Your task to perform on an android device: check the backup settings in the google photos Image 0: 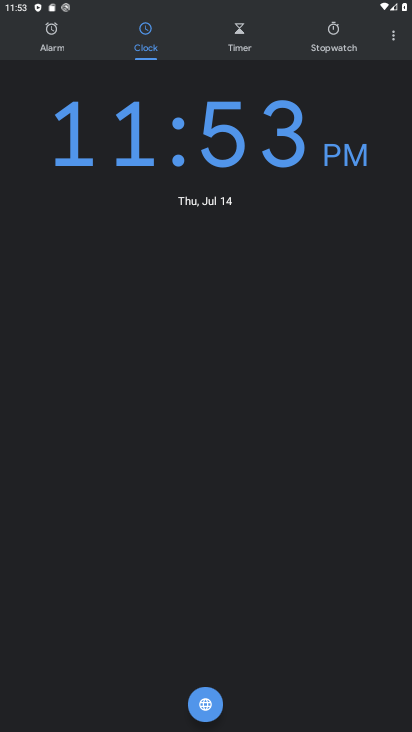
Step 0: press home button
Your task to perform on an android device: check the backup settings in the google photos Image 1: 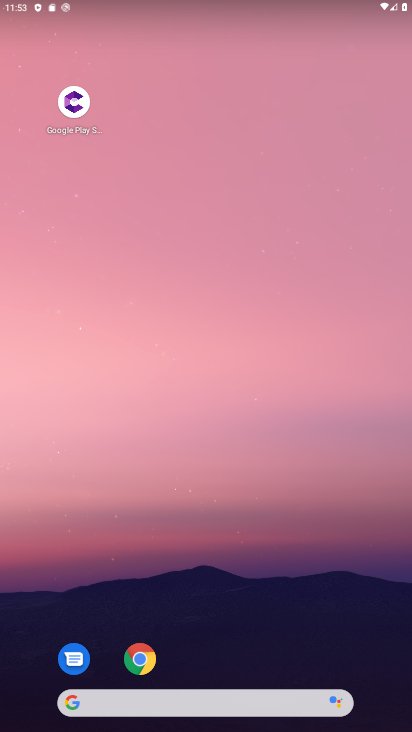
Step 1: drag from (198, 660) to (182, 197)
Your task to perform on an android device: check the backup settings in the google photos Image 2: 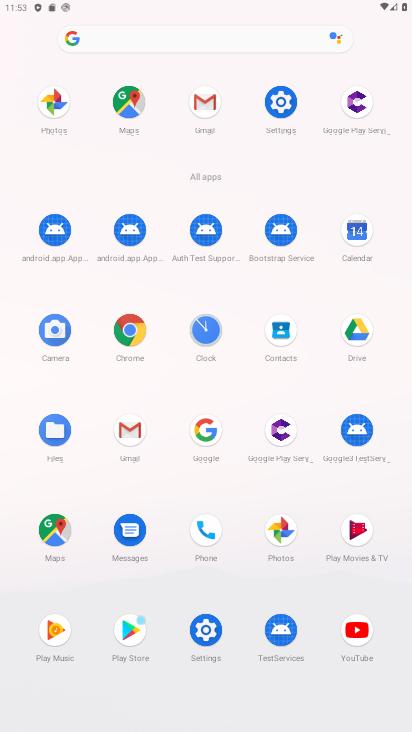
Step 2: click (63, 112)
Your task to perform on an android device: check the backup settings in the google photos Image 3: 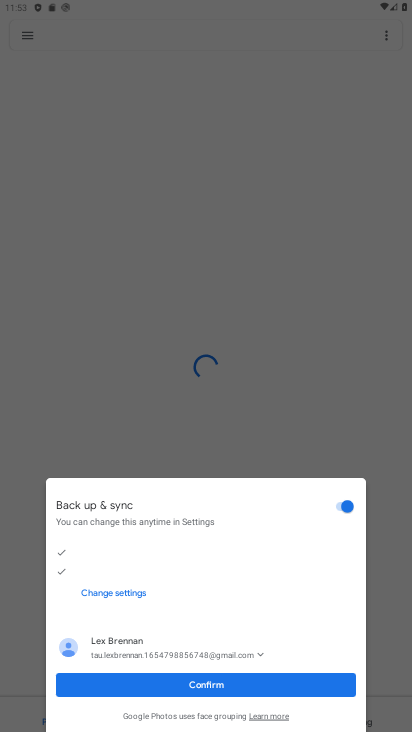
Step 3: click (33, 40)
Your task to perform on an android device: check the backup settings in the google photos Image 4: 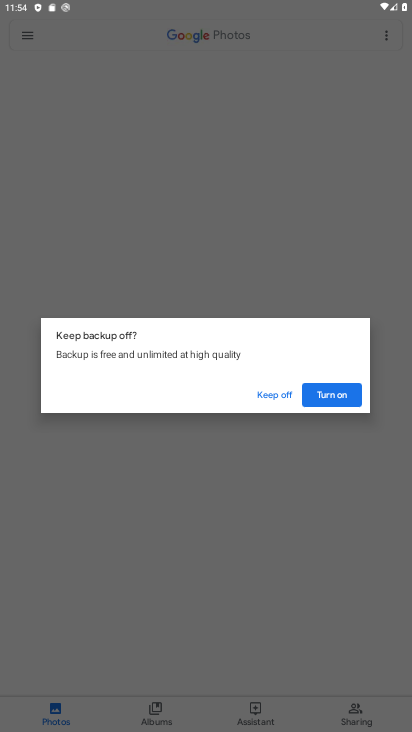
Step 4: click (278, 391)
Your task to perform on an android device: check the backup settings in the google photos Image 5: 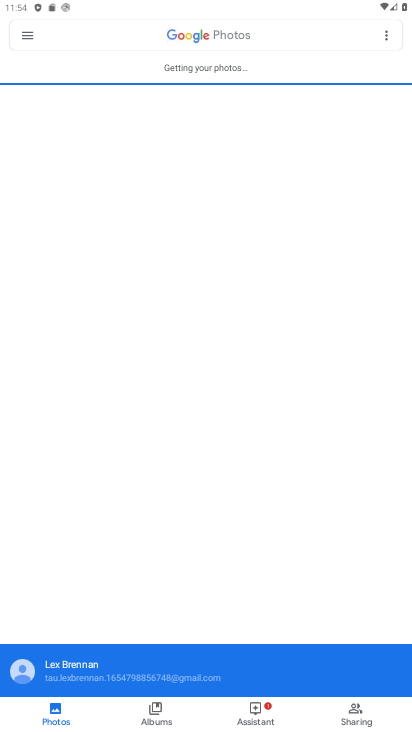
Step 5: click (32, 37)
Your task to perform on an android device: check the backup settings in the google photos Image 6: 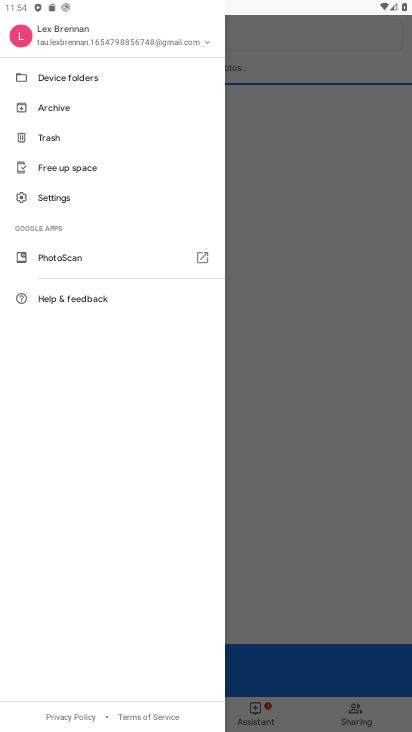
Step 6: click (56, 201)
Your task to perform on an android device: check the backup settings in the google photos Image 7: 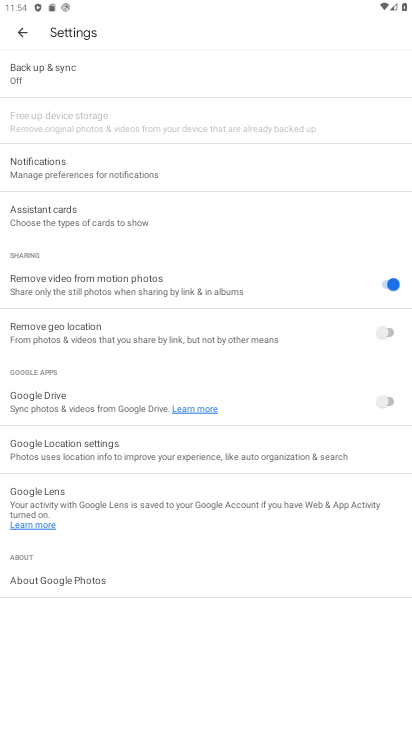
Step 7: click (101, 82)
Your task to perform on an android device: check the backup settings in the google photos Image 8: 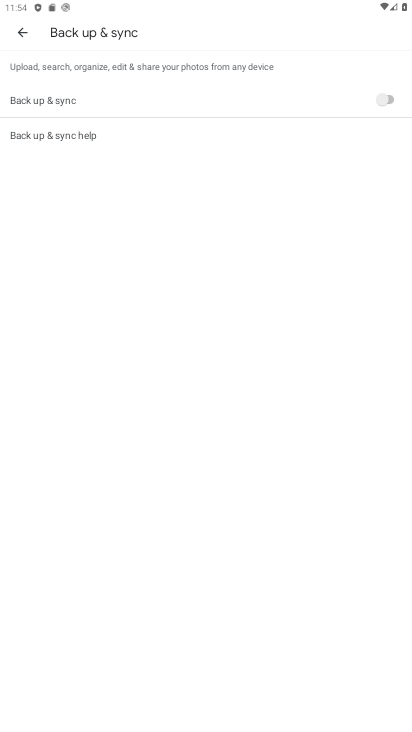
Step 8: task complete